Your task to perform on an android device: Open eBay Image 0: 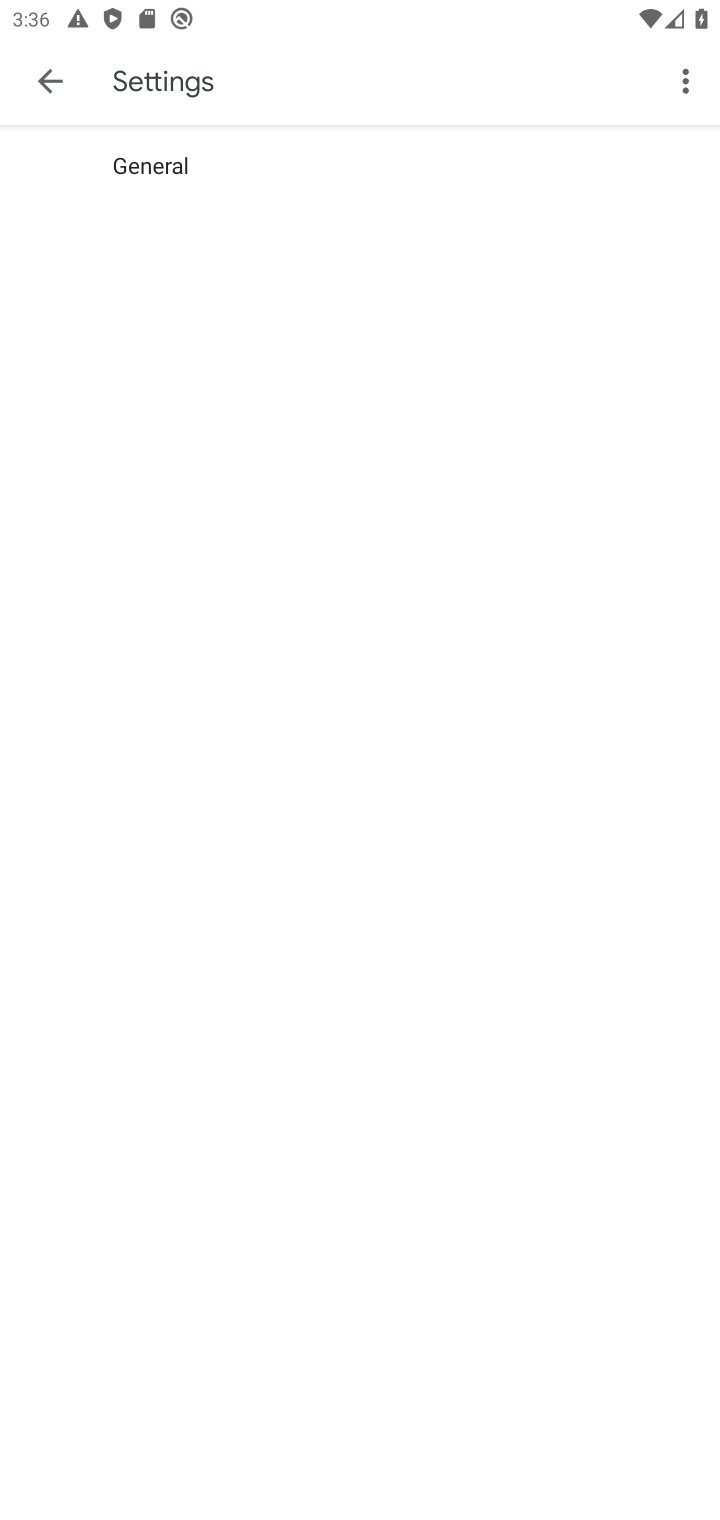
Step 0: press home button
Your task to perform on an android device: Open eBay Image 1: 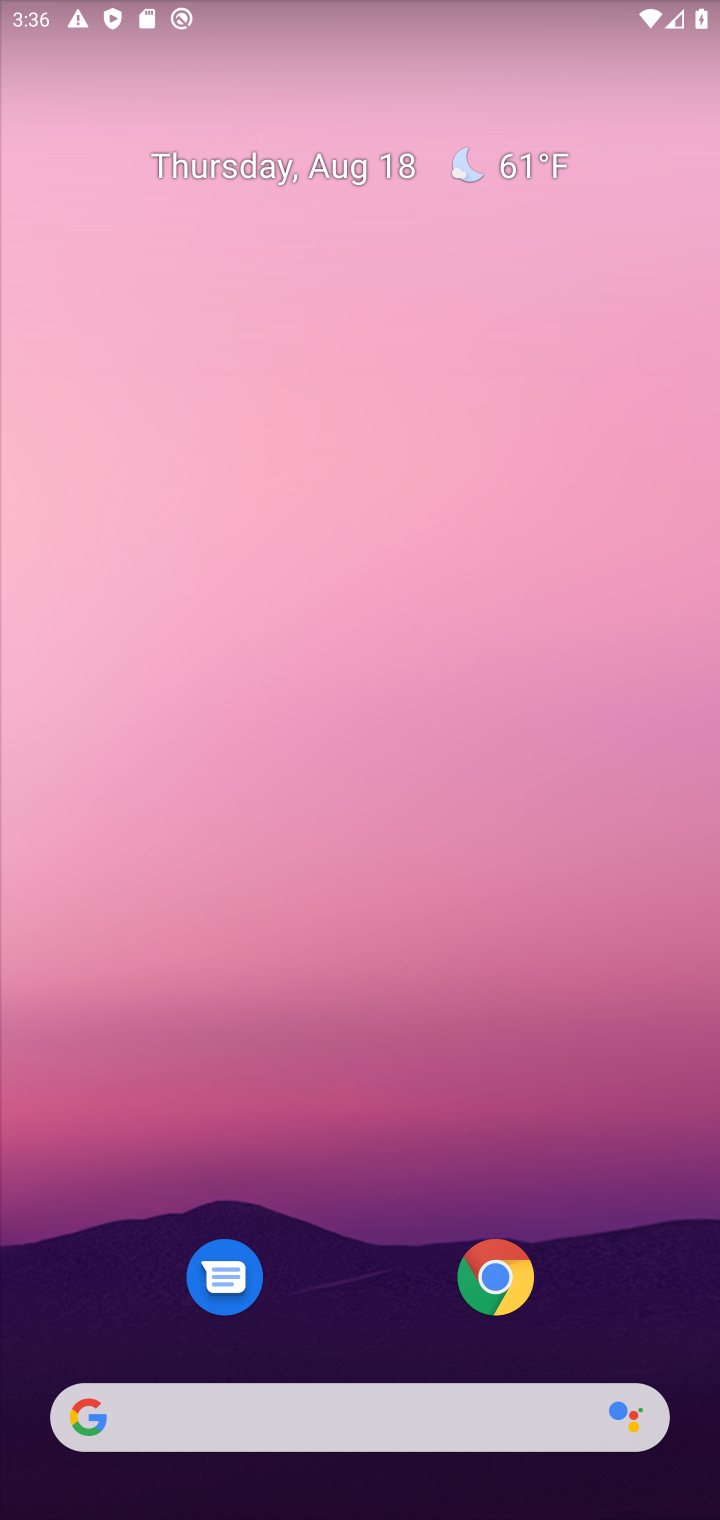
Step 1: click (512, 1271)
Your task to perform on an android device: Open eBay Image 2: 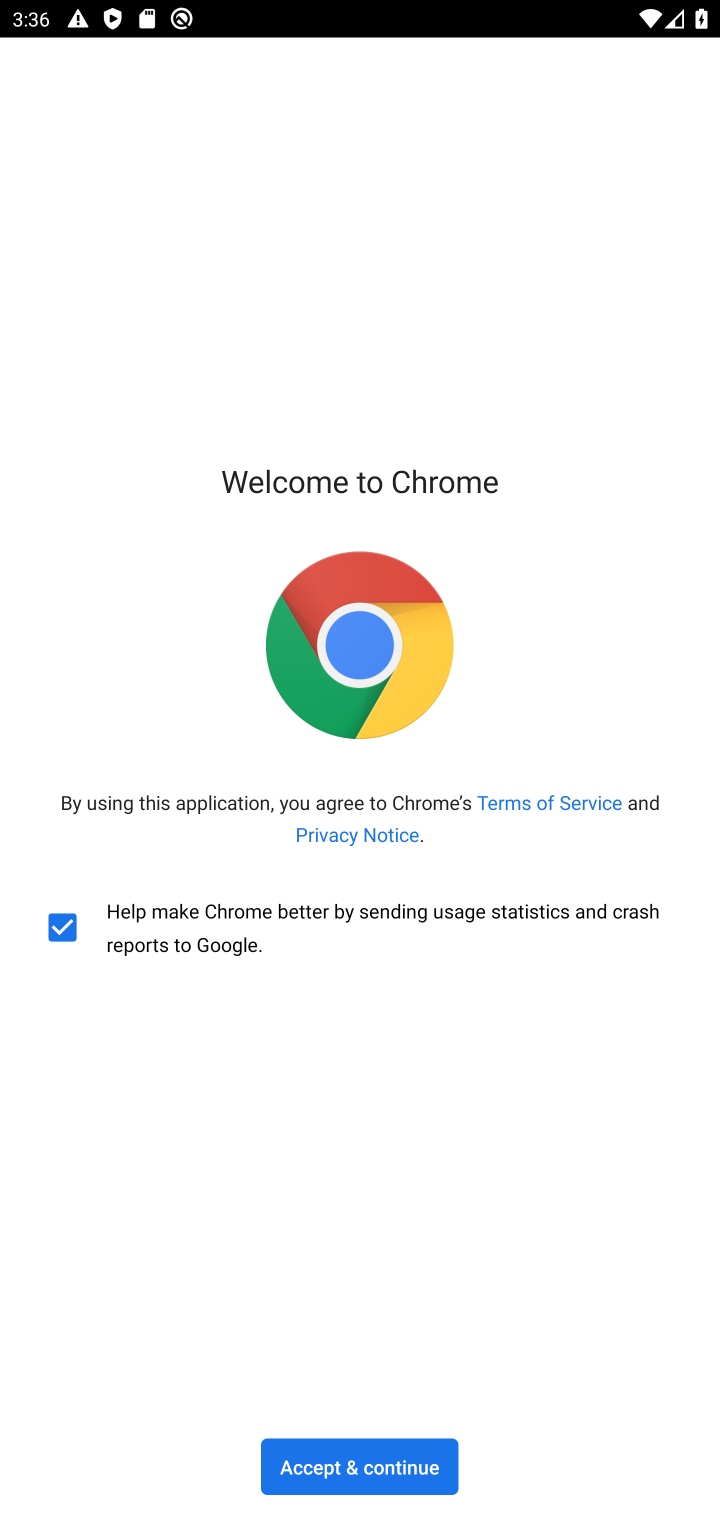
Step 2: click (322, 1467)
Your task to perform on an android device: Open eBay Image 3: 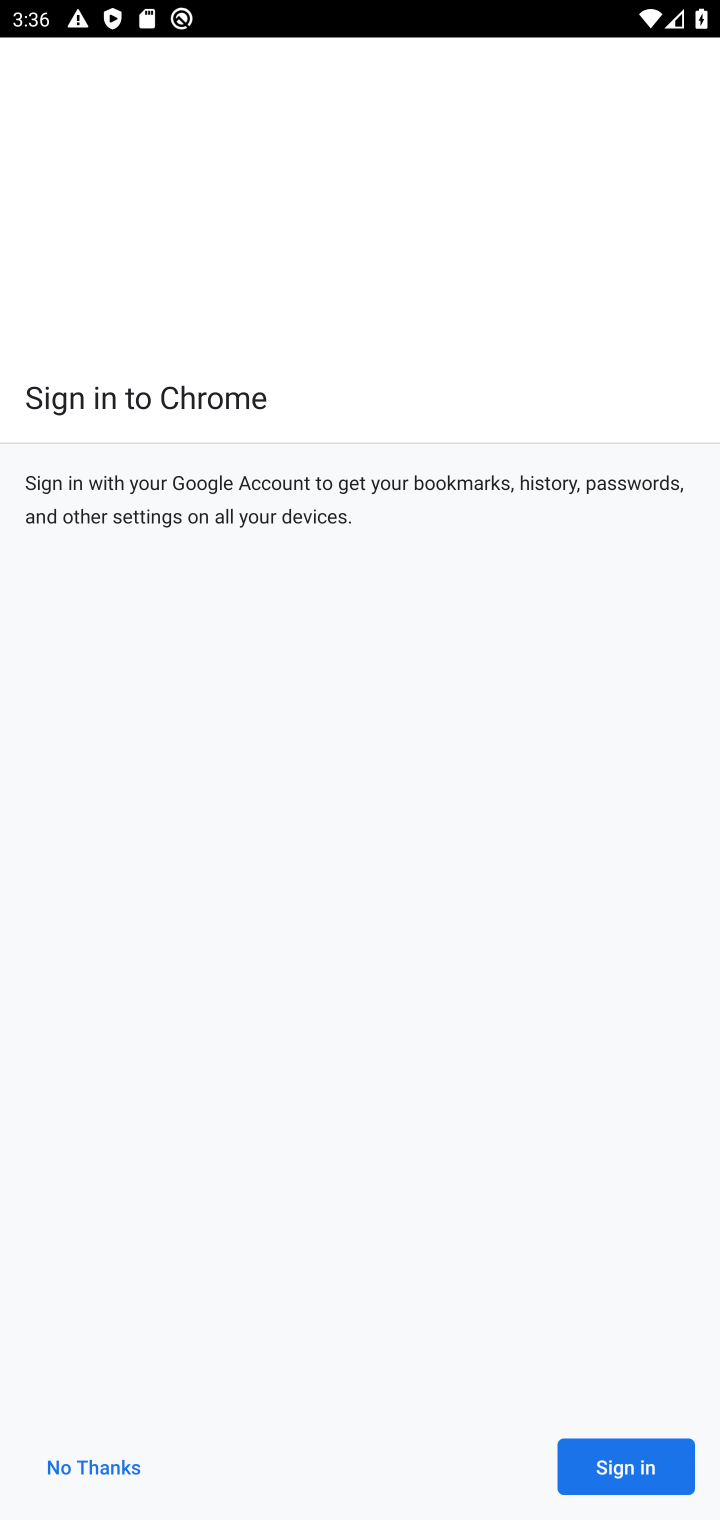
Step 3: click (625, 1468)
Your task to perform on an android device: Open eBay Image 4: 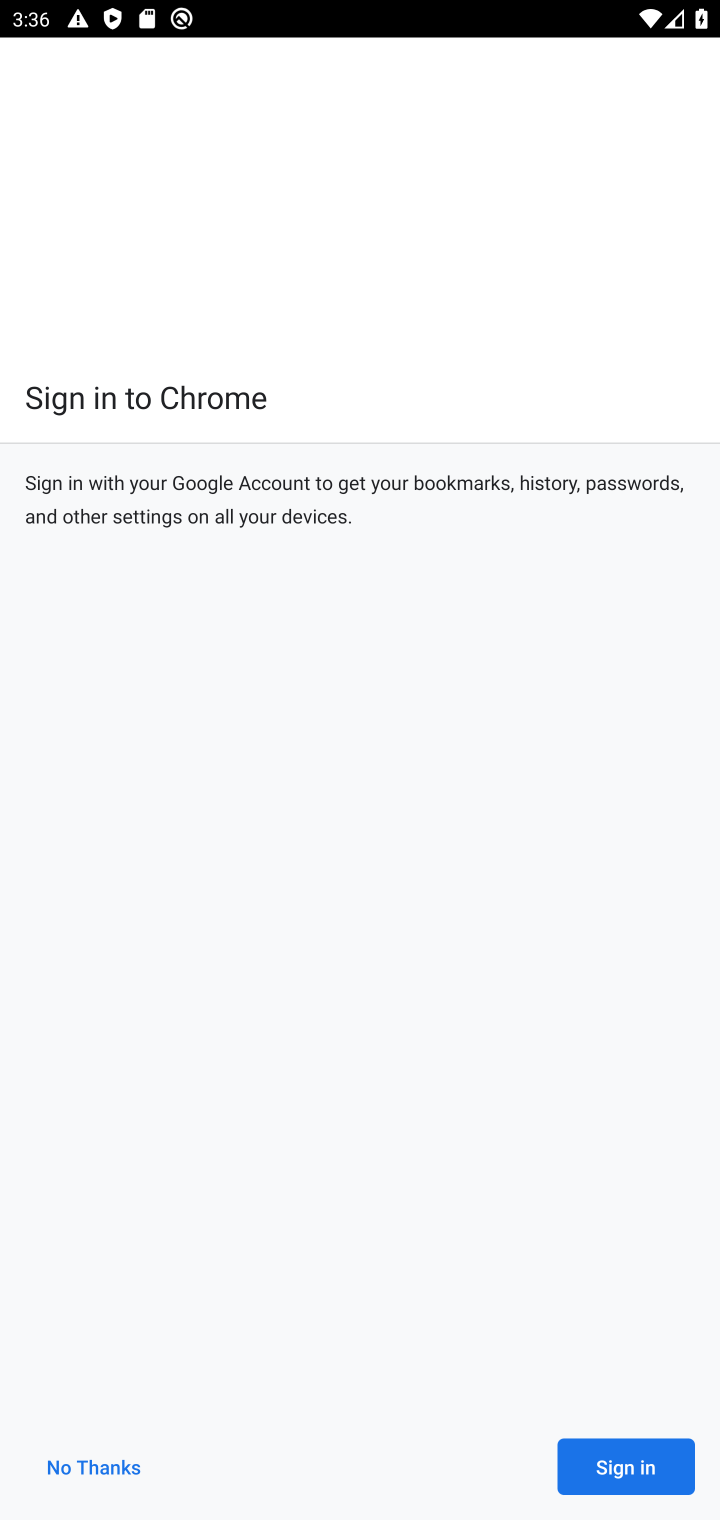
Step 4: click (625, 1468)
Your task to perform on an android device: Open eBay Image 5: 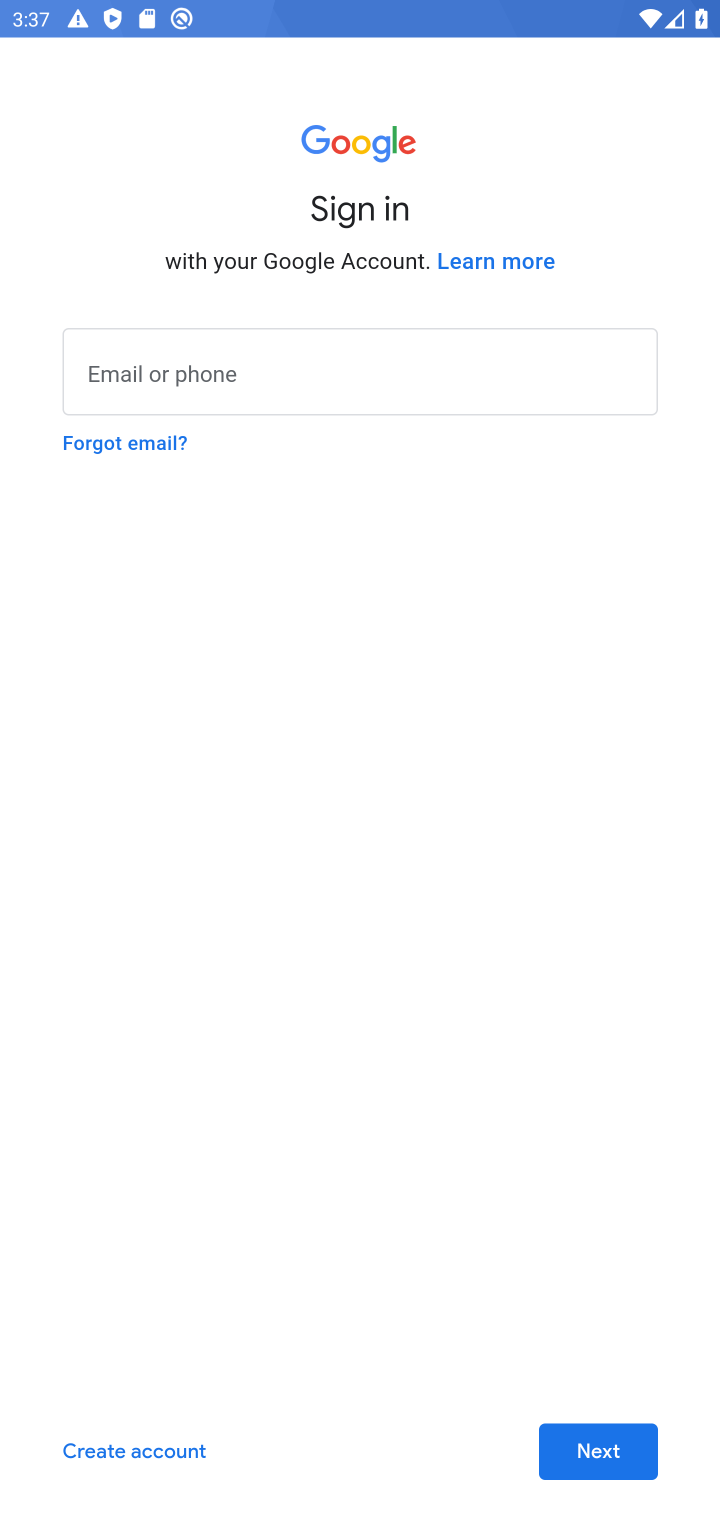
Step 5: task complete